Your task to perform on an android device: open app "Mercado Libre" Image 0: 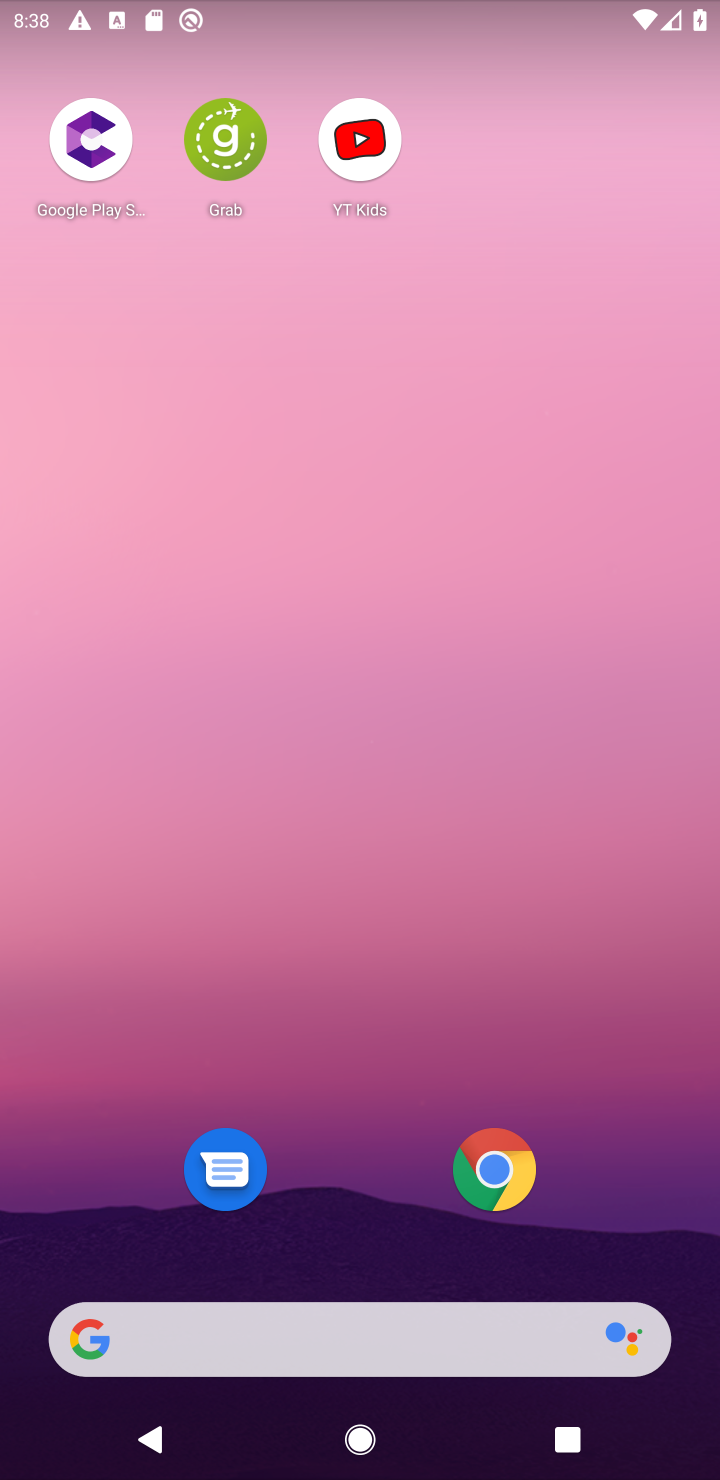
Step 0: drag from (379, 1259) to (480, 216)
Your task to perform on an android device: open app "Mercado Libre" Image 1: 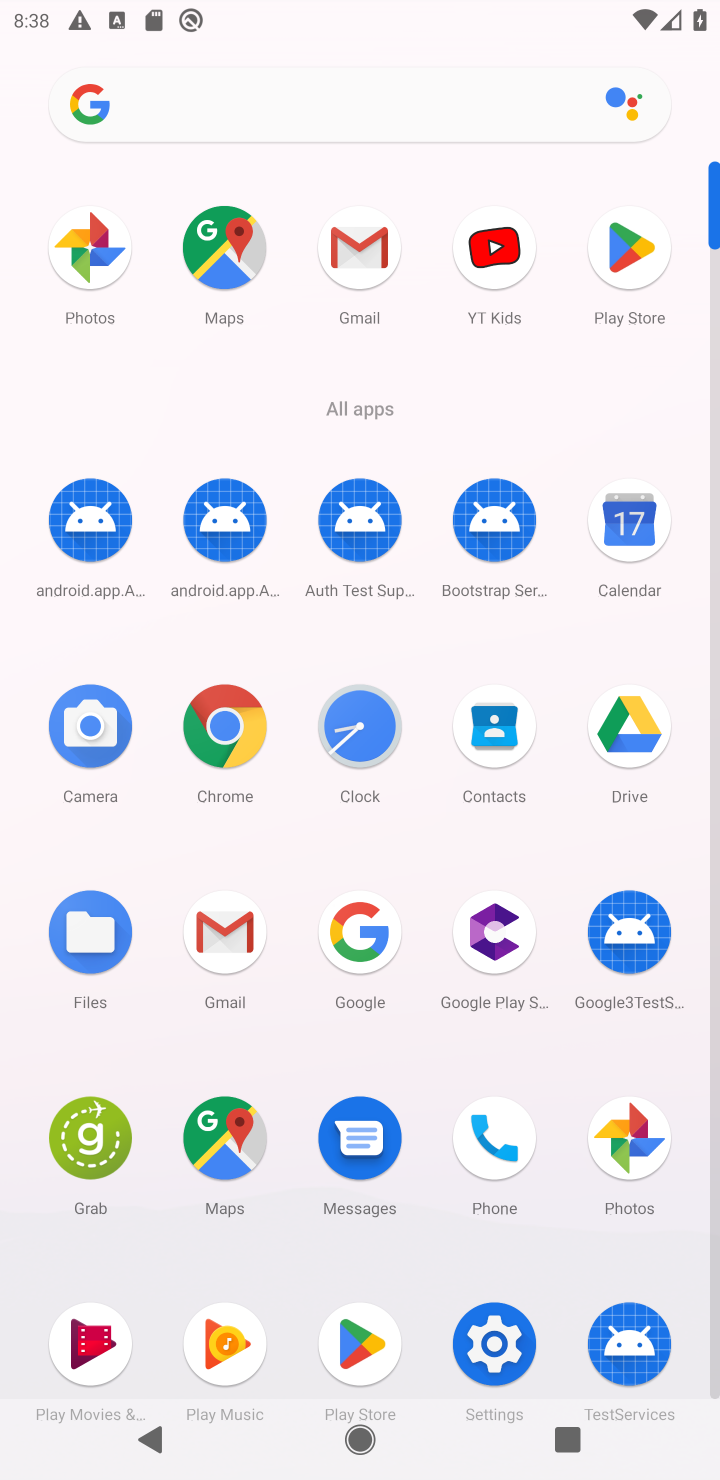
Step 1: click (351, 1358)
Your task to perform on an android device: open app "Mercado Libre" Image 2: 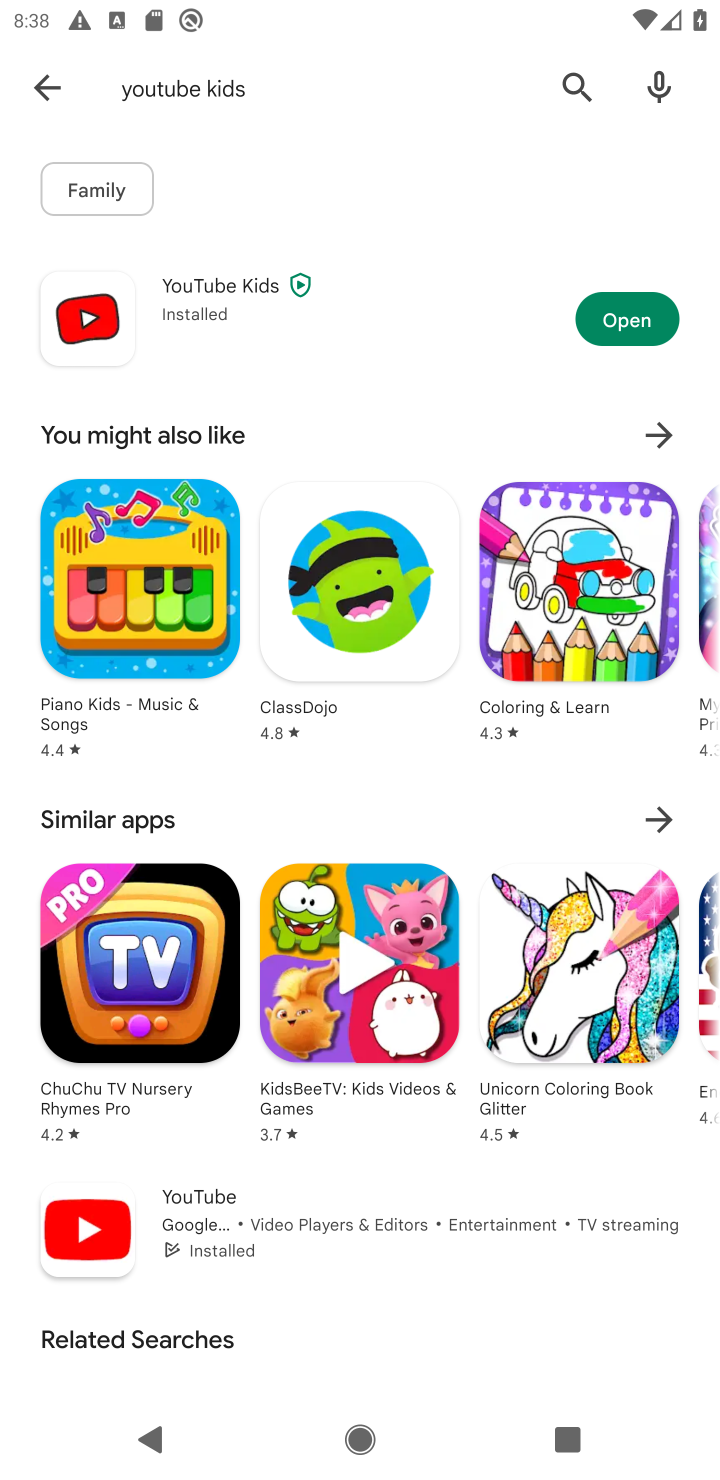
Step 2: click (265, 93)
Your task to perform on an android device: open app "Mercado Libre" Image 3: 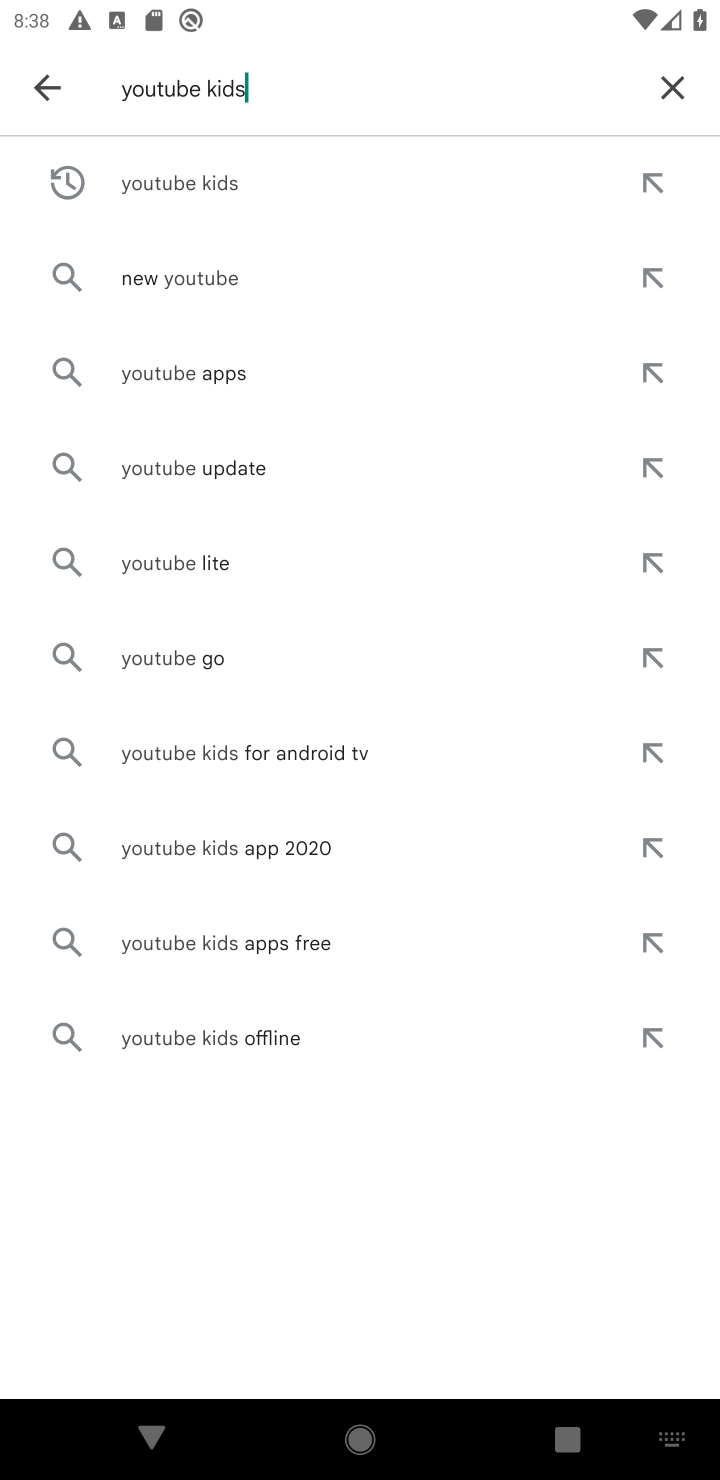
Step 3: click (675, 78)
Your task to perform on an android device: open app "Mercado Libre" Image 4: 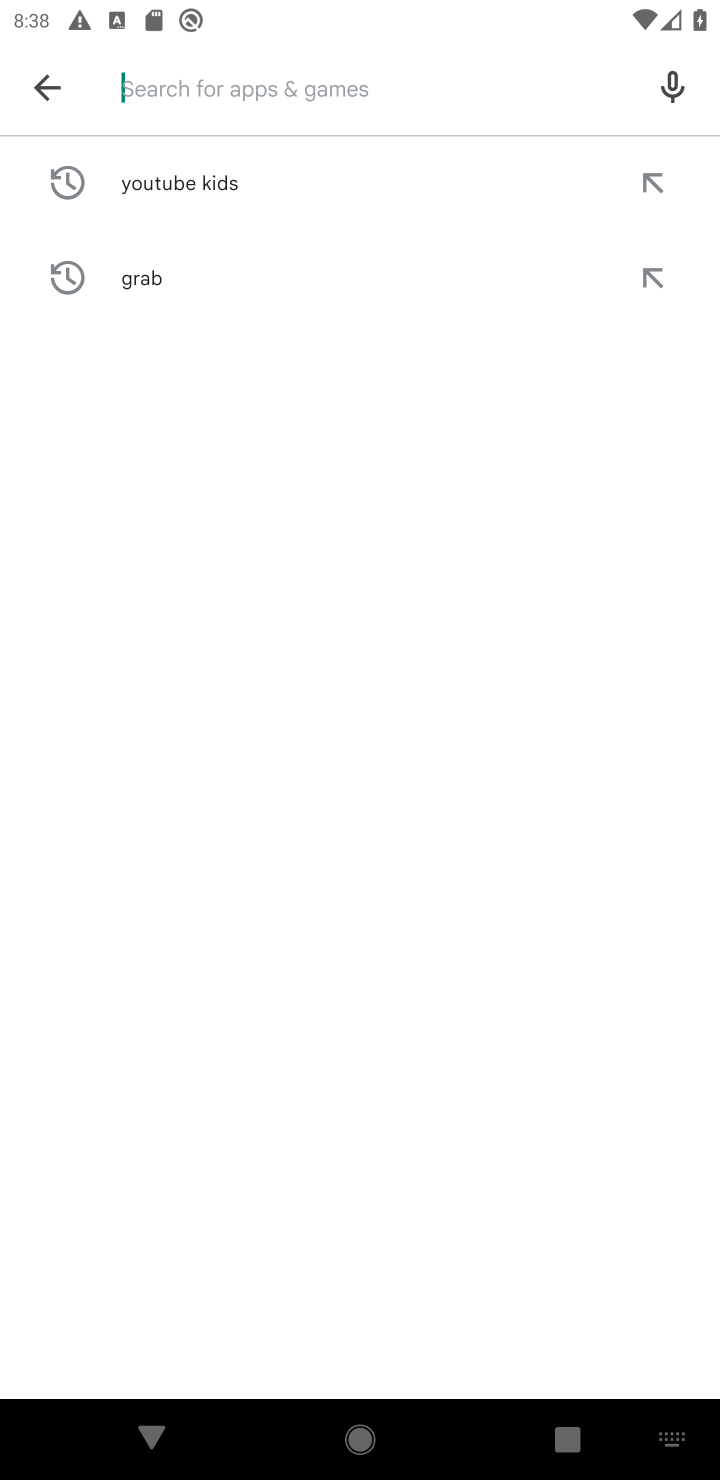
Step 4: type "mercado libre"
Your task to perform on an android device: open app "Mercado Libre" Image 5: 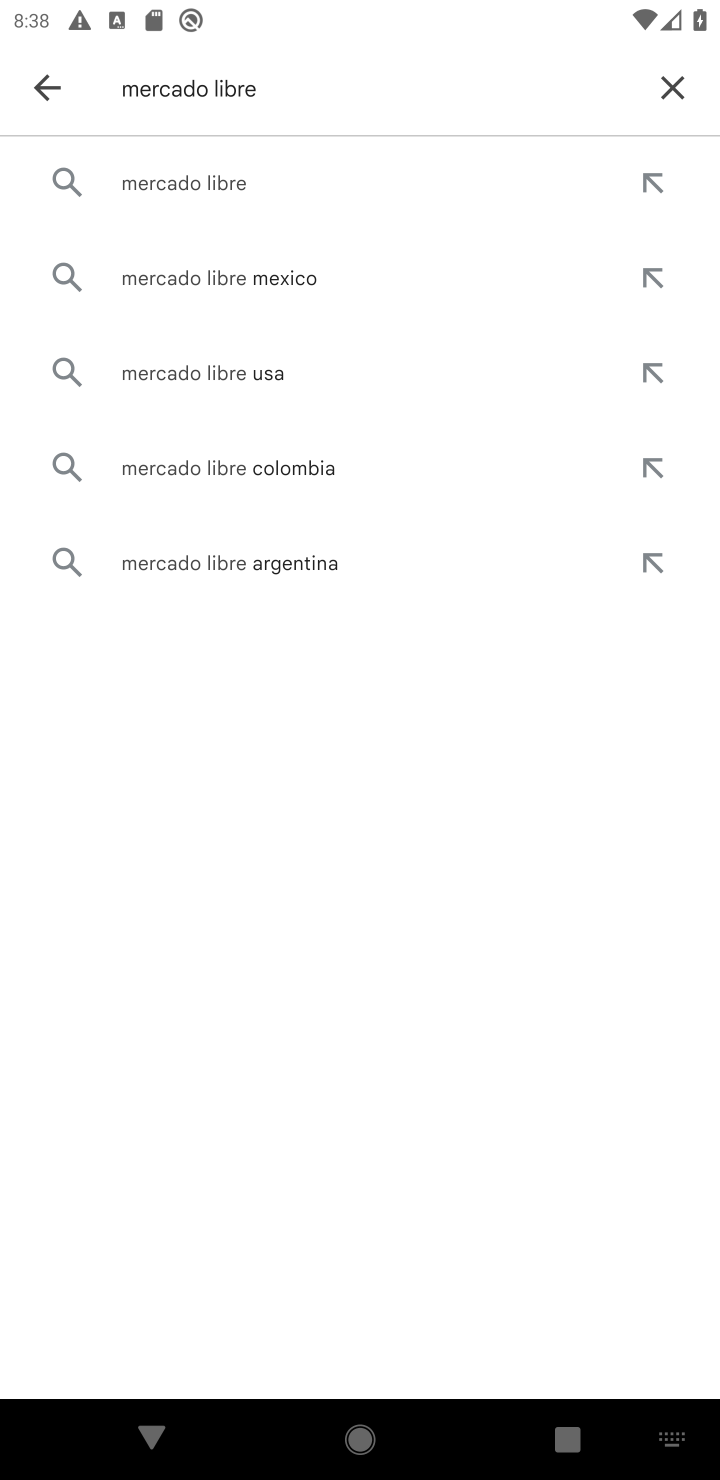
Step 5: click (239, 173)
Your task to perform on an android device: open app "Mercado Libre" Image 6: 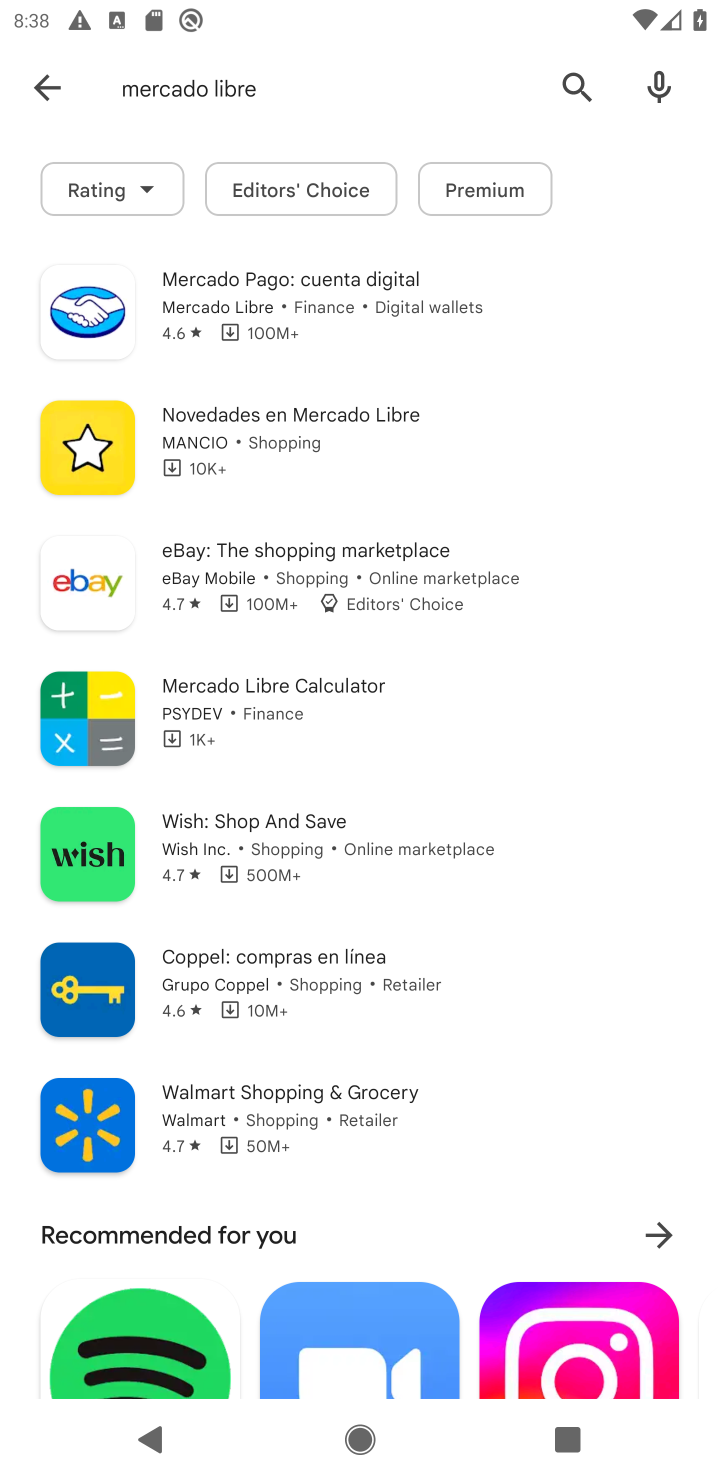
Step 6: task complete